Your task to perform on an android device: turn on sleep mode Image 0: 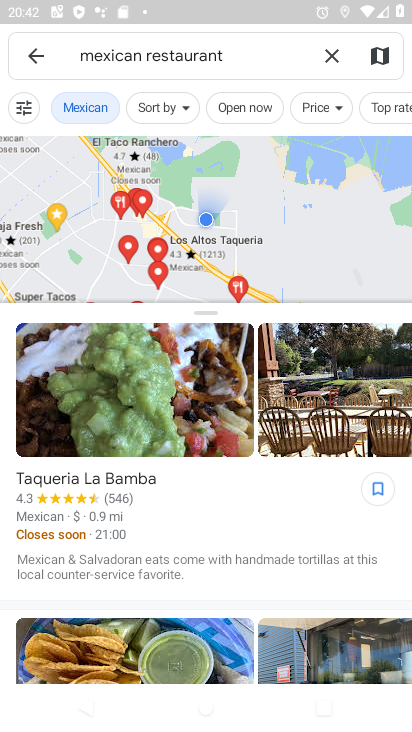
Step 0: press back button
Your task to perform on an android device: turn on sleep mode Image 1: 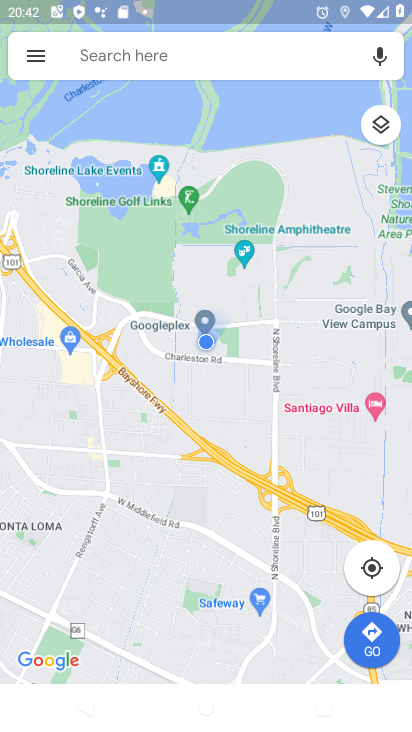
Step 1: press back button
Your task to perform on an android device: turn on sleep mode Image 2: 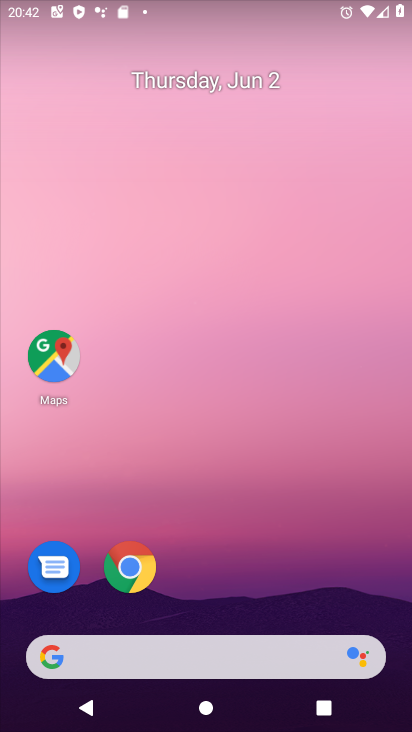
Step 2: drag from (261, 559) to (243, 291)
Your task to perform on an android device: turn on sleep mode Image 3: 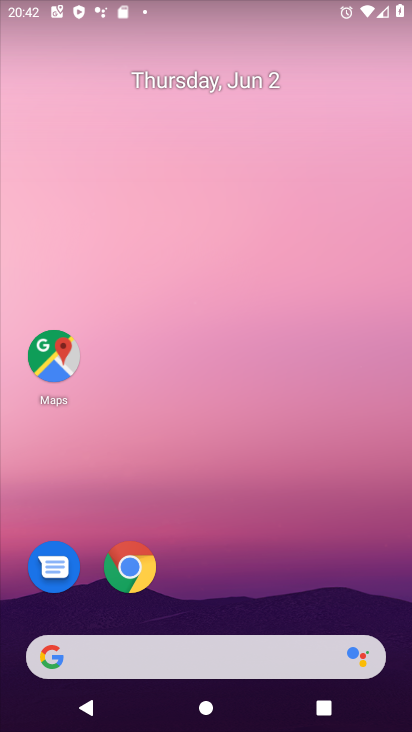
Step 3: drag from (230, 537) to (242, 152)
Your task to perform on an android device: turn on sleep mode Image 4: 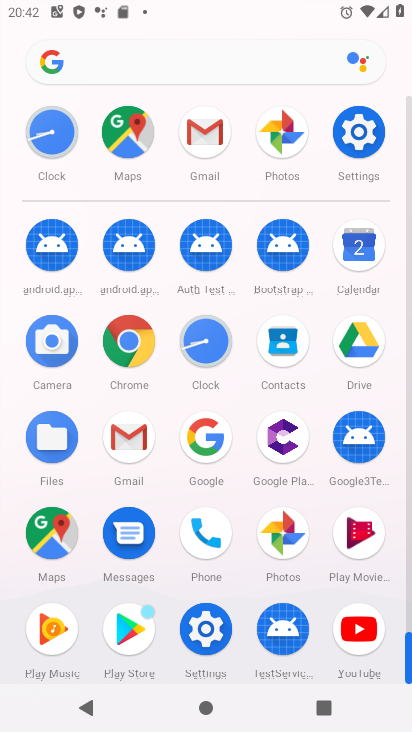
Step 4: click (358, 128)
Your task to perform on an android device: turn on sleep mode Image 5: 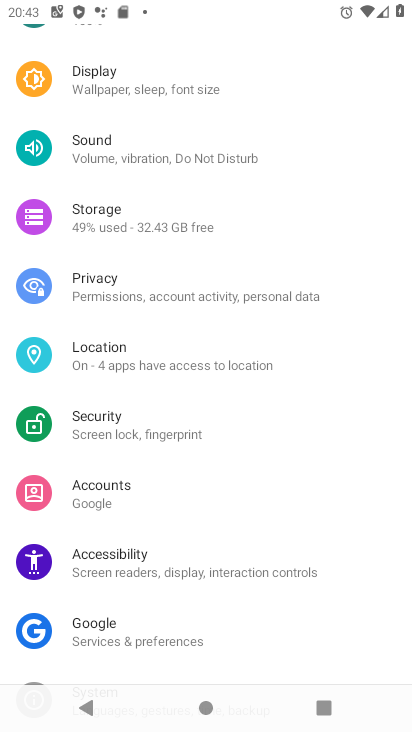
Step 5: drag from (147, 231) to (139, 300)
Your task to perform on an android device: turn on sleep mode Image 6: 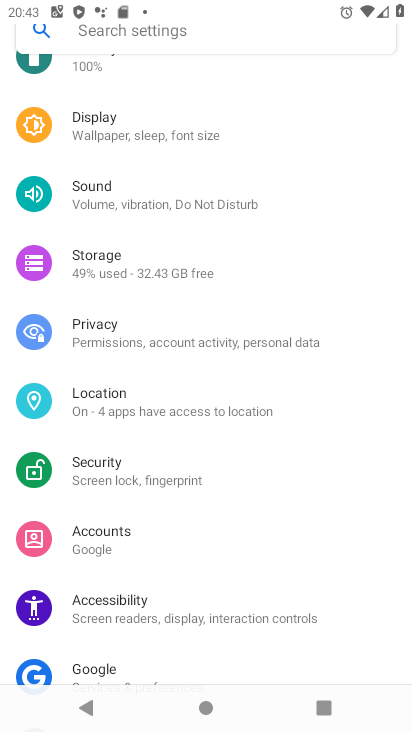
Step 6: drag from (174, 155) to (151, 252)
Your task to perform on an android device: turn on sleep mode Image 7: 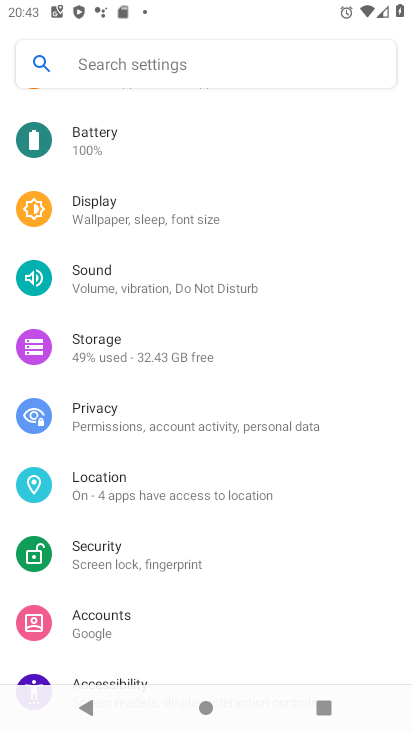
Step 7: click (176, 217)
Your task to perform on an android device: turn on sleep mode Image 8: 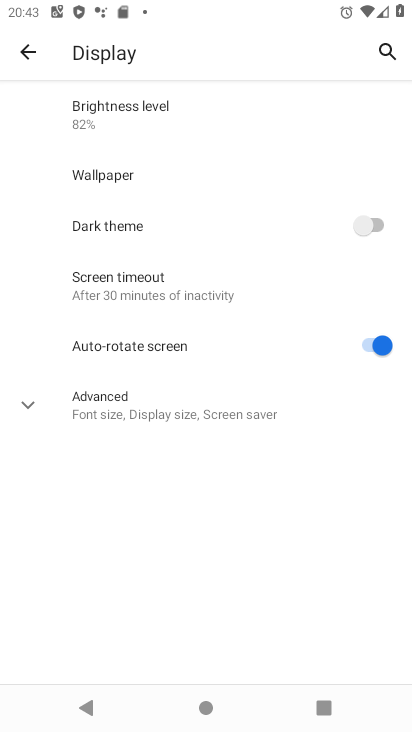
Step 8: click (193, 306)
Your task to perform on an android device: turn on sleep mode Image 9: 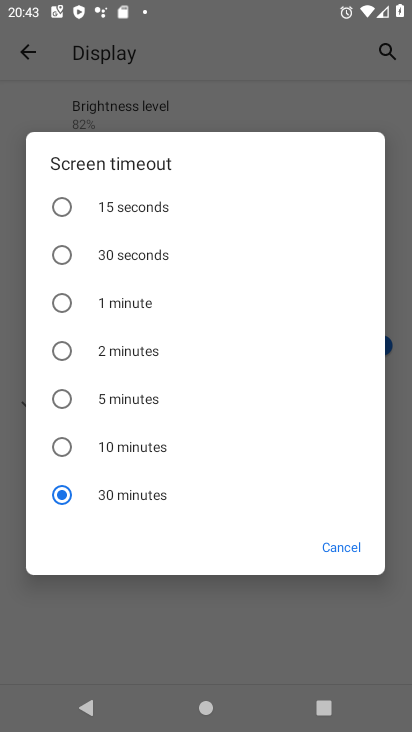
Step 9: click (118, 327)
Your task to perform on an android device: turn on sleep mode Image 10: 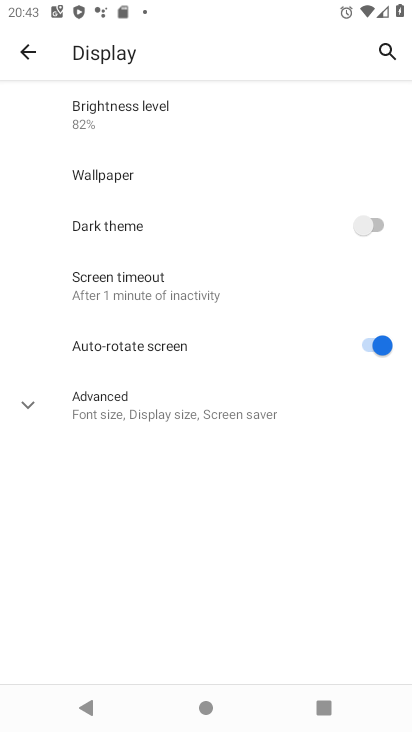
Step 10: click (149, 289)
Your task to perform on an android device: turn on sleep mode Image 11: 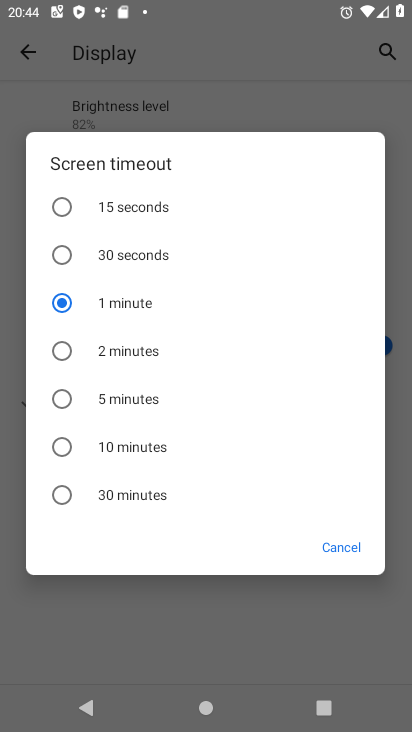
Step 11: click (355, 545)
Your task to perform on an android device: turn on sleep mode Image 12: 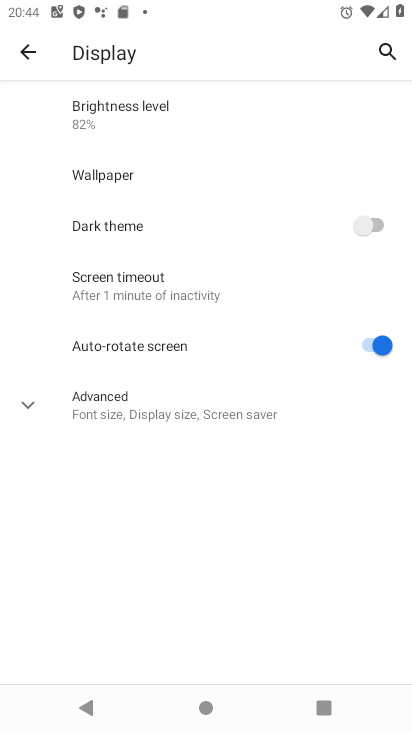
Step 12: click (199, 417)
Your task to perform on an android device: turn on sleep mode Image 13: 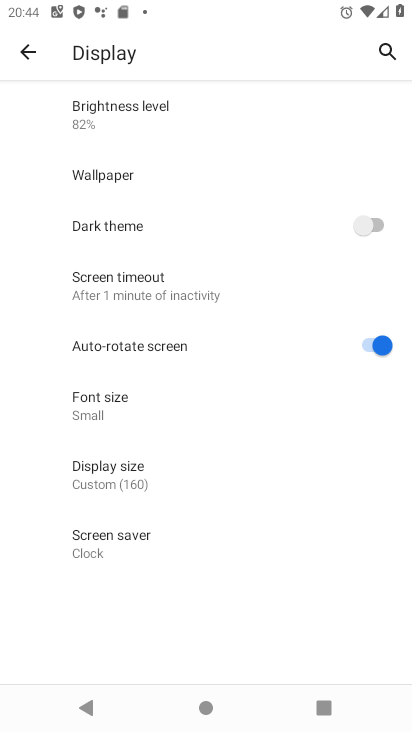
Step 13: task complete